Your task to perform on an android device: What is the recent news? Image 0: 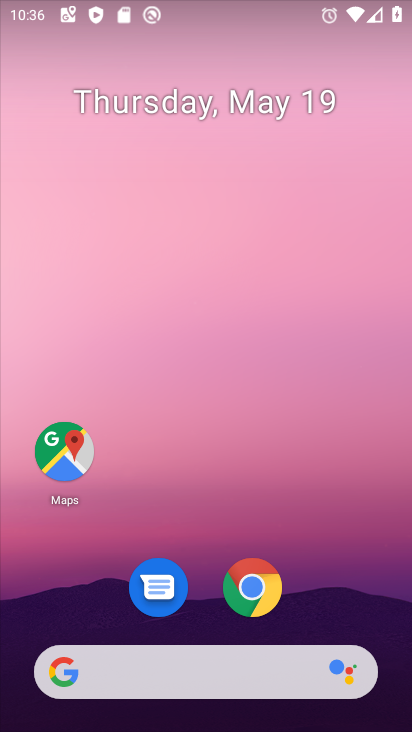
Step 0: drag from (341, 584) to (306, 54)
Your task to perform on an android device: What is the recent news? Image 1: 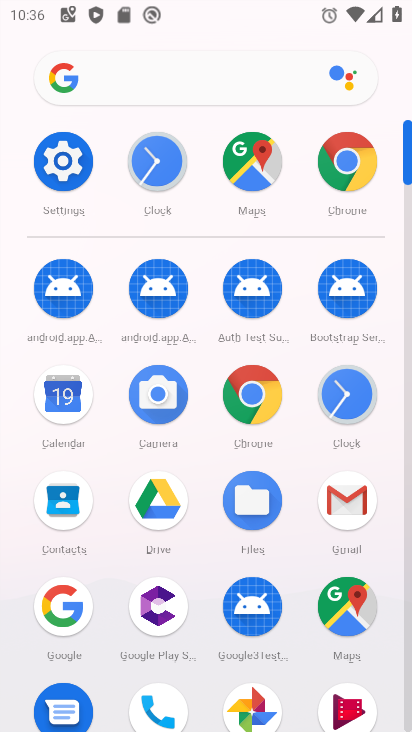
Step 1: click (273, 407)
Your task to perform on an android device: What is the recent news? Image 2: 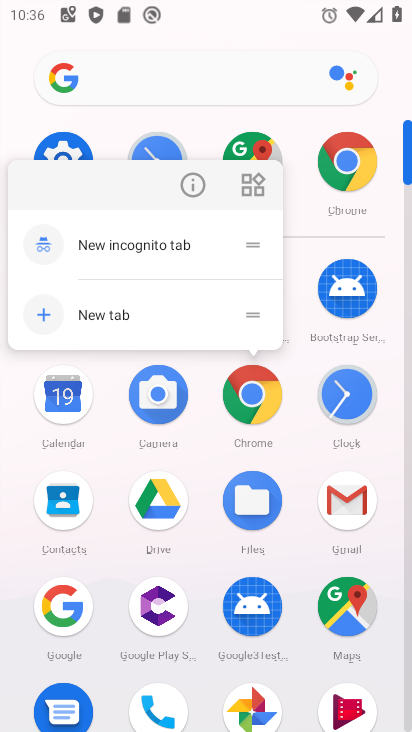
Step 2: click (259, 405)
Your task to perform on an android device: What is the recent news? Image 3: 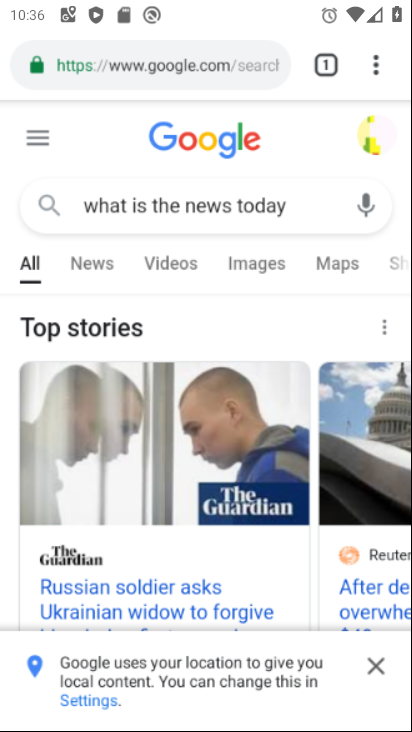
Step 3: click (216, 62)
Your task to perform on an android device: What is the recent news? Image 4: 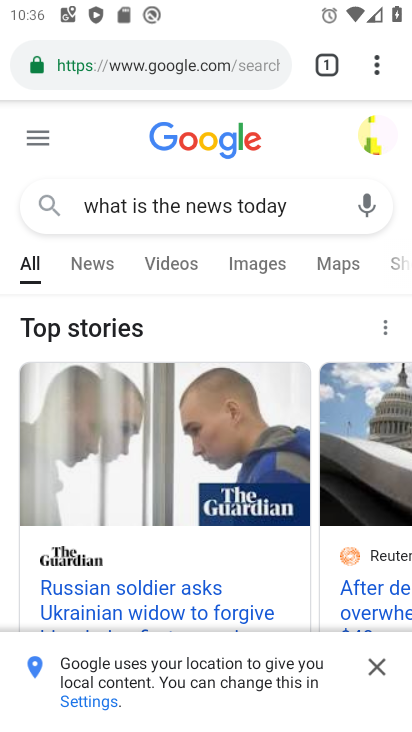
Step 4: click (244, 66)
Your task to perform on an android device: What is the recent news? Image 5: 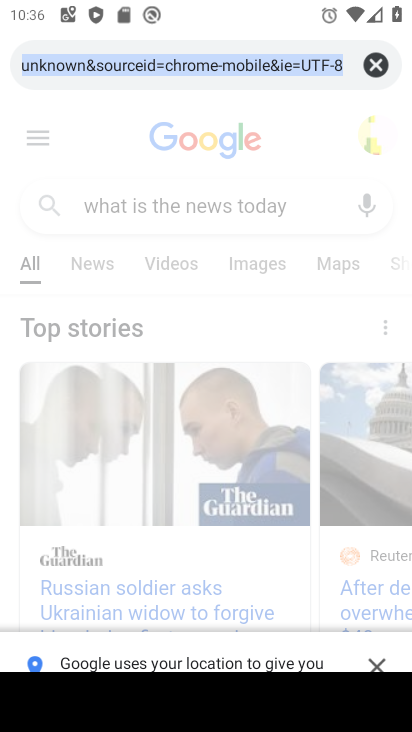
Step 5: click (366, 65)
Your task to perform on an android device: What is the recent news? Image 6: 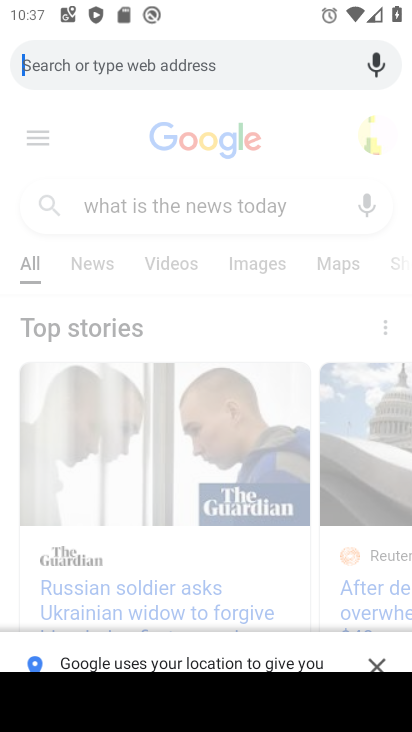
Step 6: type "what is the recent news"
Your task to perform on an android device: What is the recent news? Image 7: 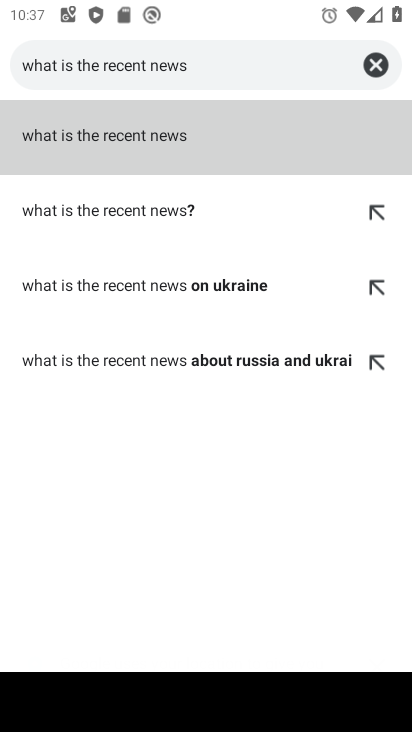
Step 7: click (117, 156)
Your task to perform on an android device: What is the recent news? Image 8: 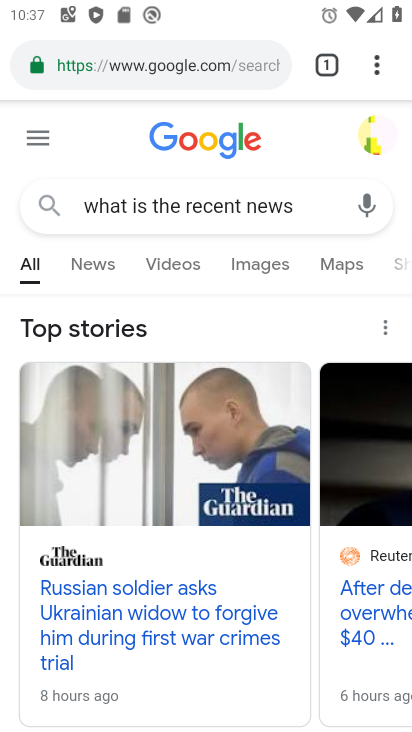
Step 8: task complete